Your task to perform on an android device: open app "Microsoft Authenticator" Image 0: 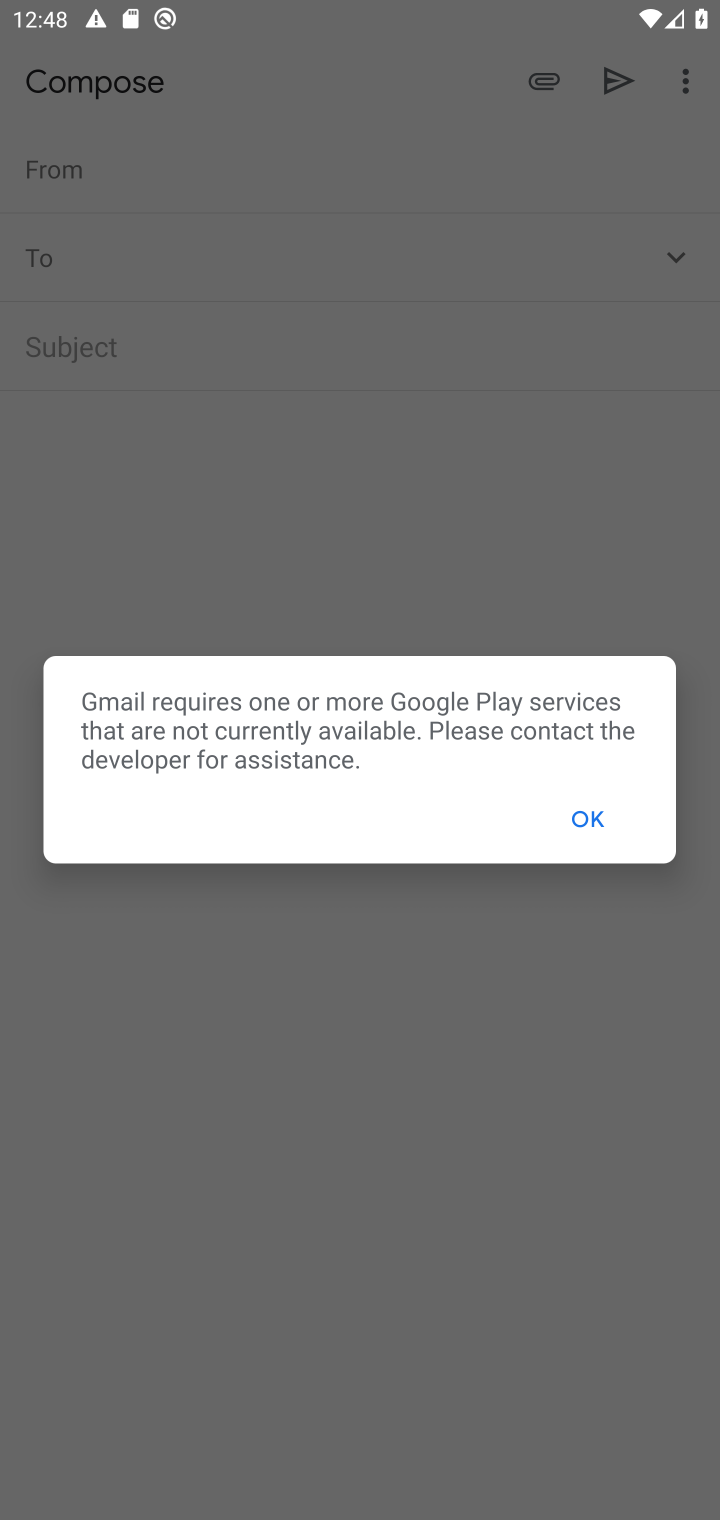
Step 0: press home button
Your task to perform on an android device: open app "Microsoft Authenticator" Image 1: 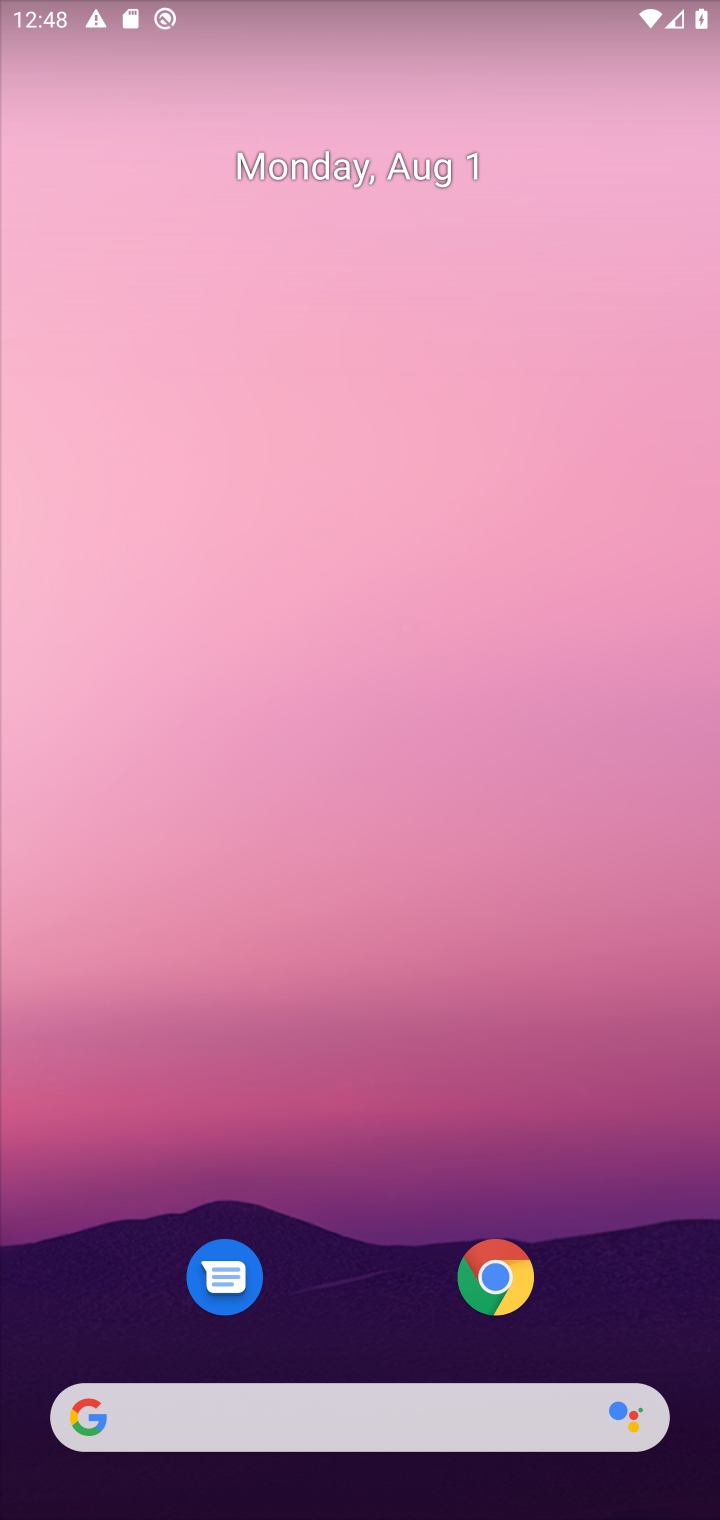
Step 1: drag from (302, 914) to (267, 136)
Your task to perform on an android device: open app "Microsoft Authenticator" Image 2: 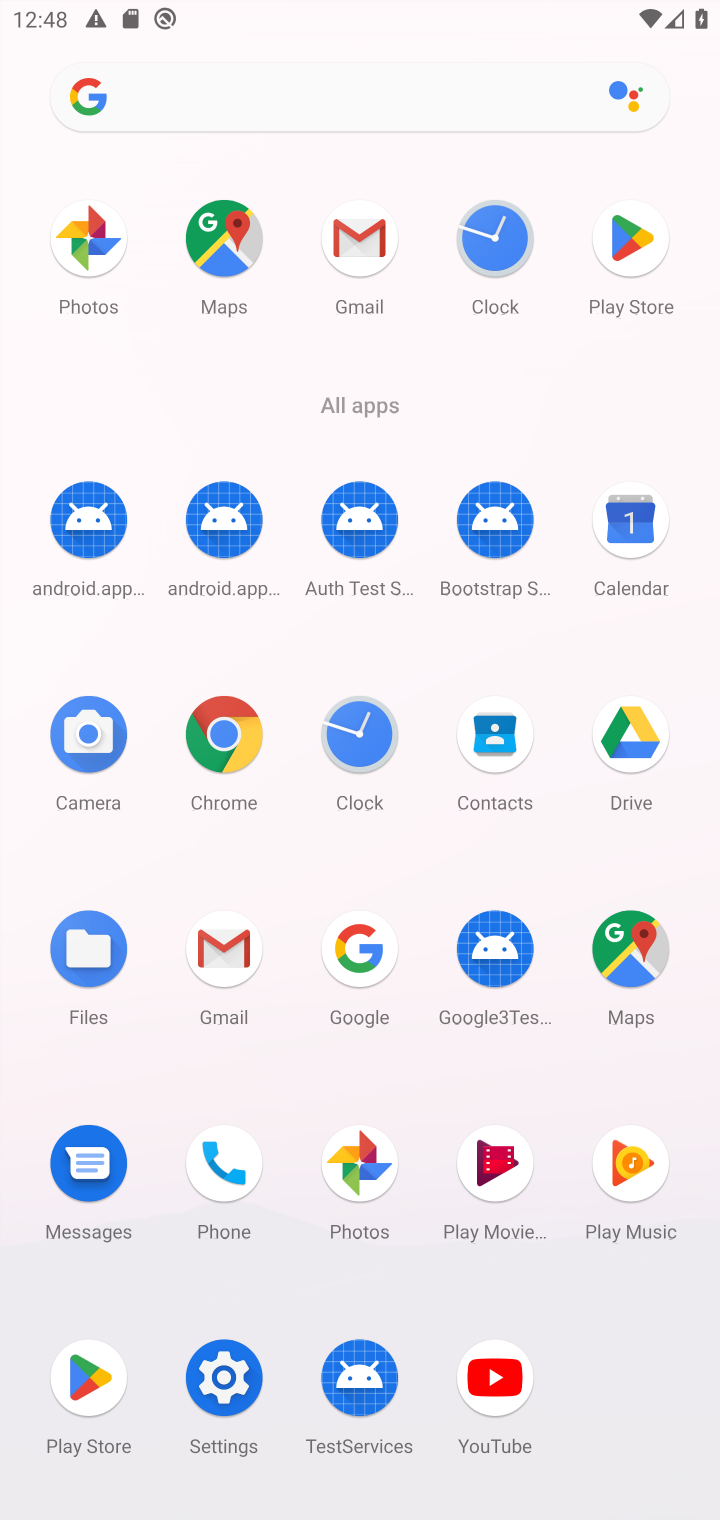
Step 2: click (611, 226)
Your task to perform on an android device: open app "Microsoft Authenticator" Image 3: 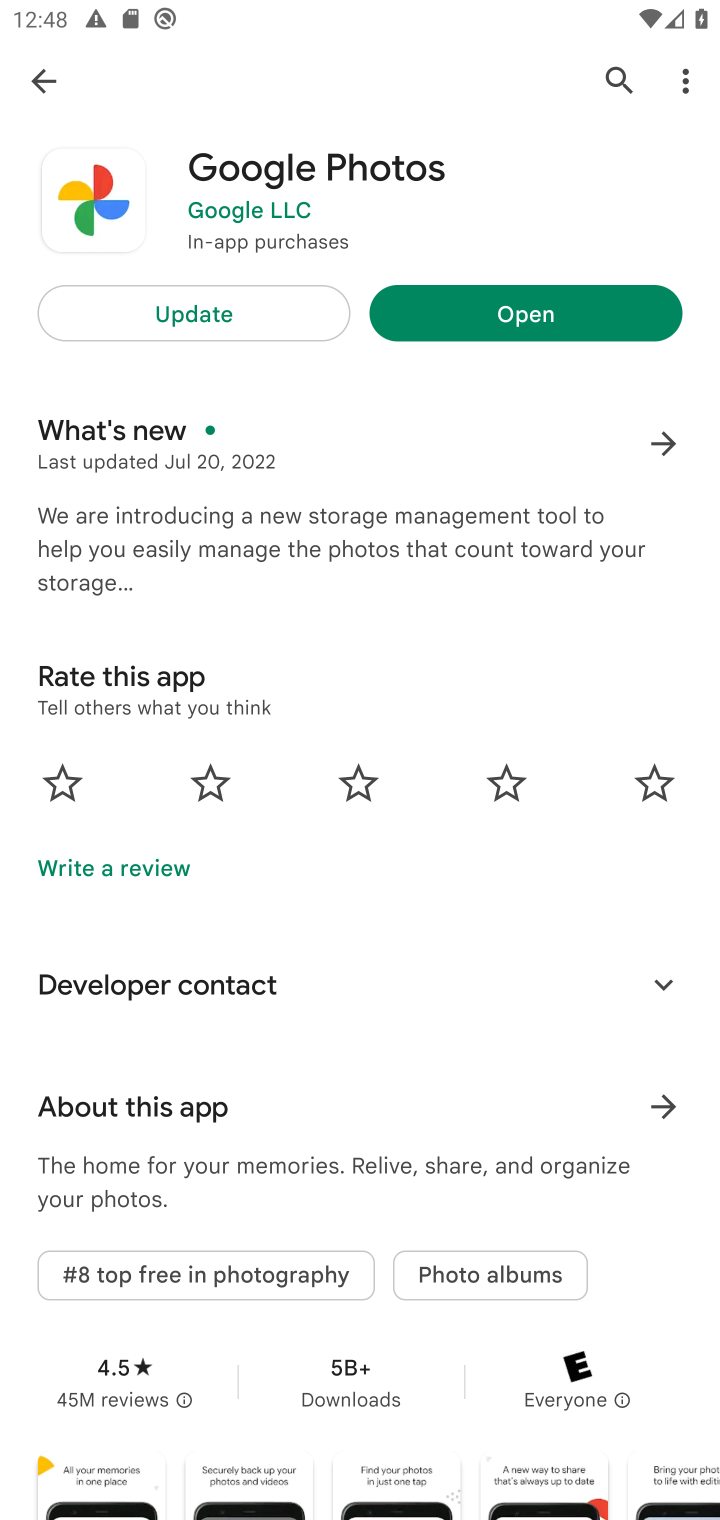
Step 3: click (602, 61)
Your task to perform on an android device: open app "Microsoft Authenticator" Image 4: 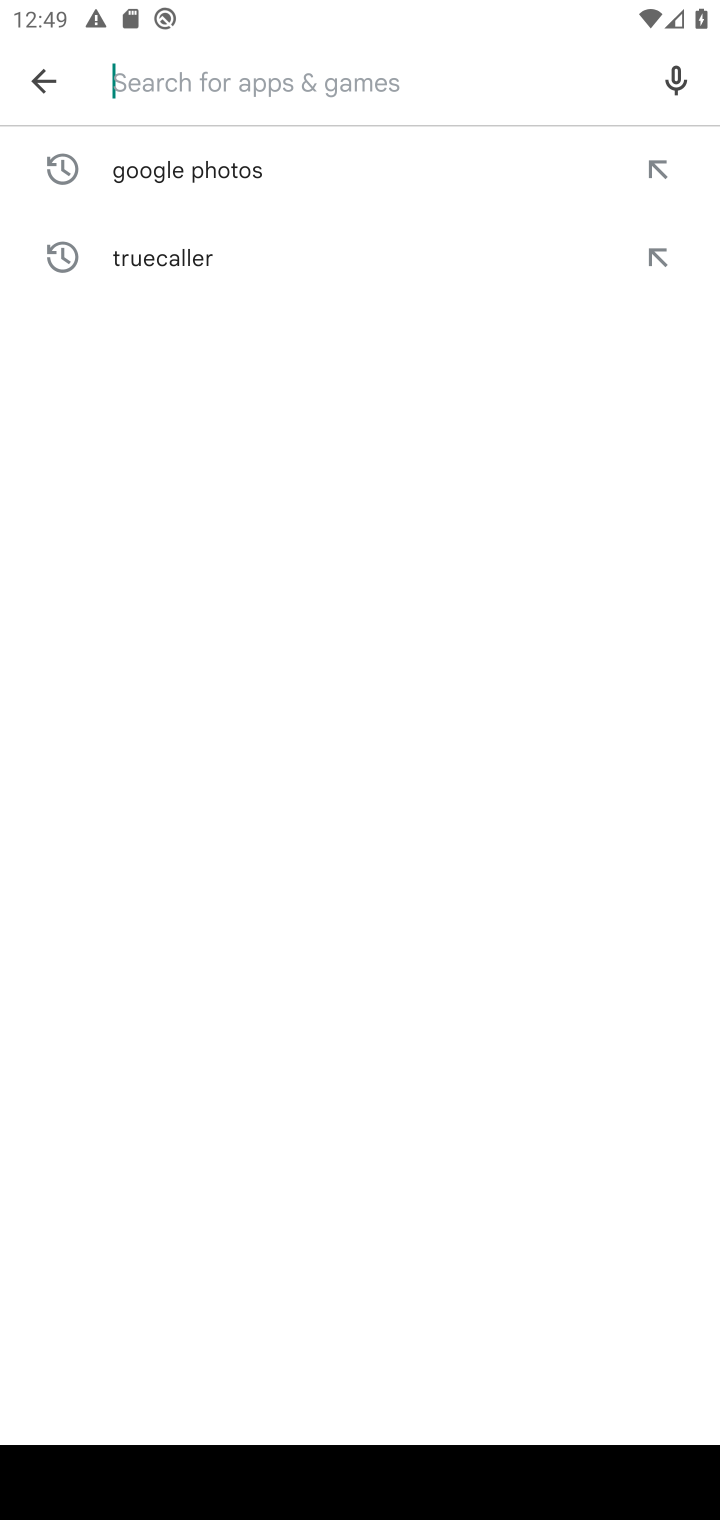
Step 4: type "microsoft authenticator"
Your task to perform on an android device: open app "Microsoft Authenticator" Image 5: 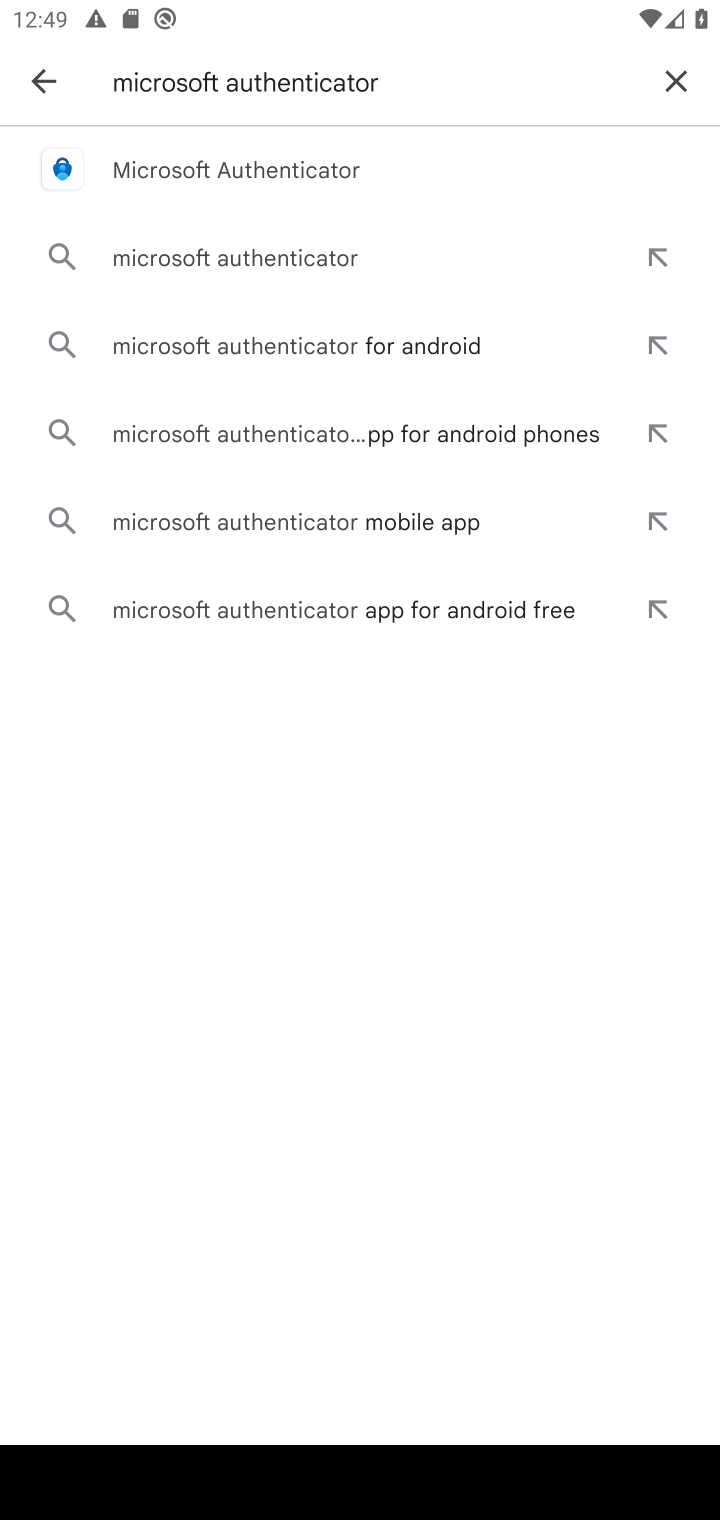
Step 5: click (227, 163)
Your task to perform on an android device: open app "Microsoft Authenticator" Image 6: 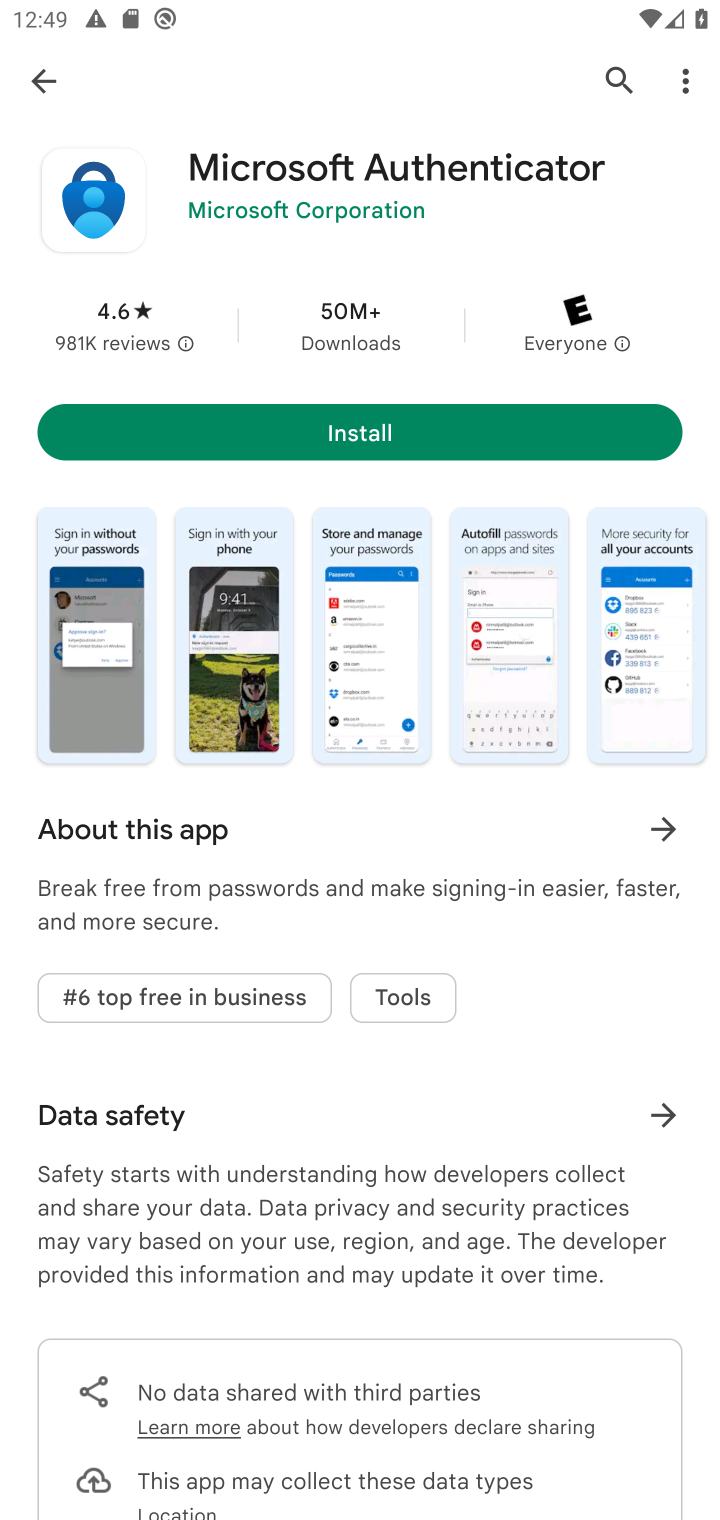
Step 6: task complete